Your task to perform on an android device: toggle pop-ups in chrome Image 0: 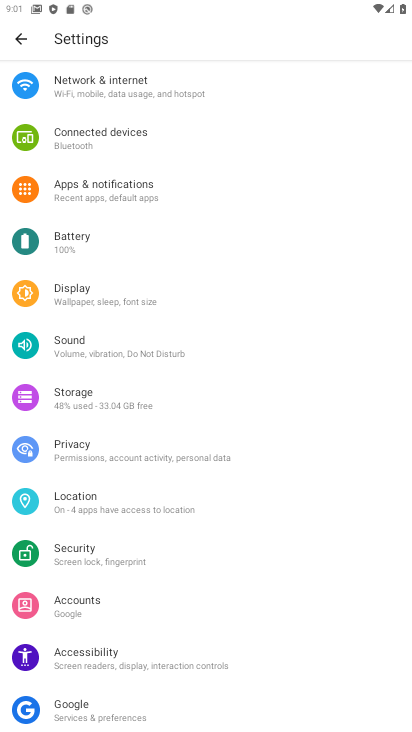
Step 0: press home button
Your task to perform on an android device: toggle pop-ups in chrome Image 1: 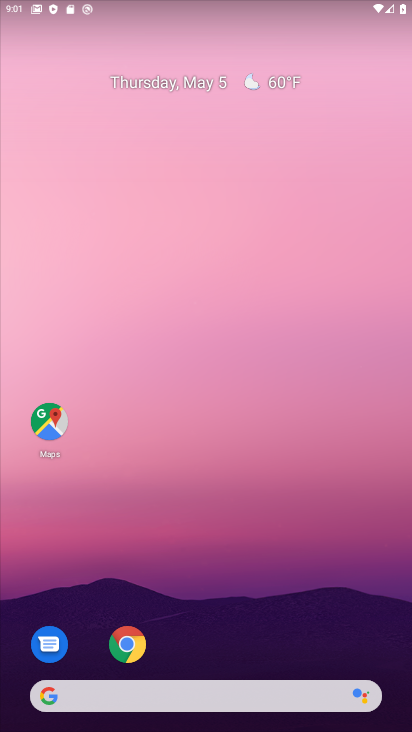
Step 1: drag from (379, 645) to (361, 85)
Your task to perform on an android device: toggle pop-ups in chrome Image 2: 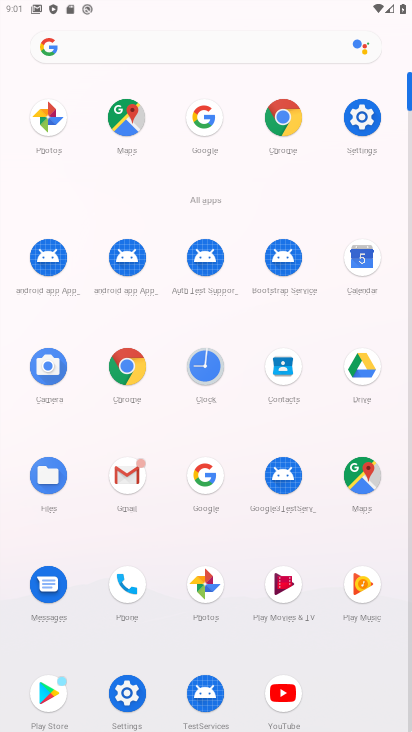
Step 2: click (124, 377)
Your task to perform on an android device: toggle pop-ups in chrome Image 3: 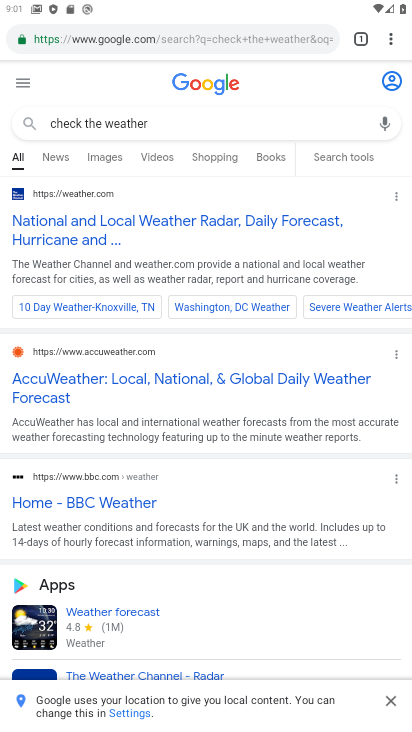
Step 3: drag from (390, 42) to (271, 438)
Your task to perform on an android device: toggle pop-ups in chrome Image 4: 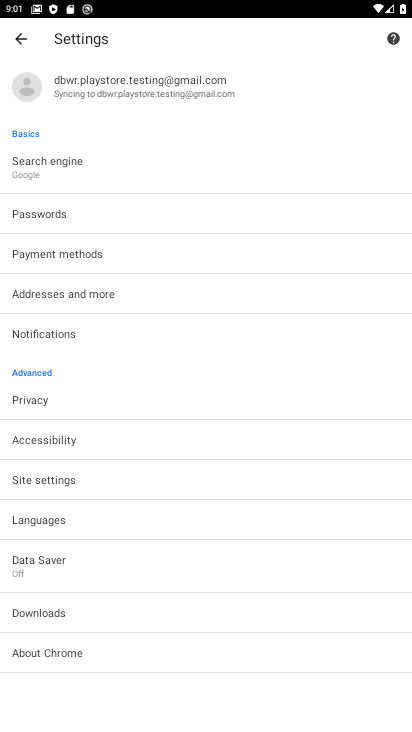
Step 4: drag from (224, 619) to (247, 376)
Your task to perform on an android device: toggle pop-ups in chrome Image 5: 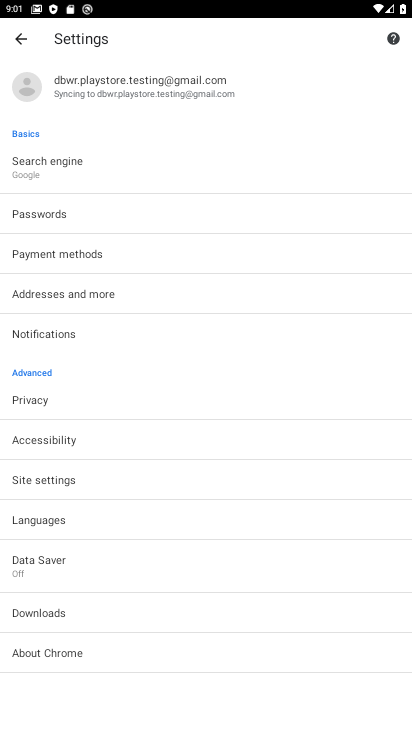
Step 5: click (75, 485)
Your task to perform on an android device: toggle pop-ups in chrome Image 6: 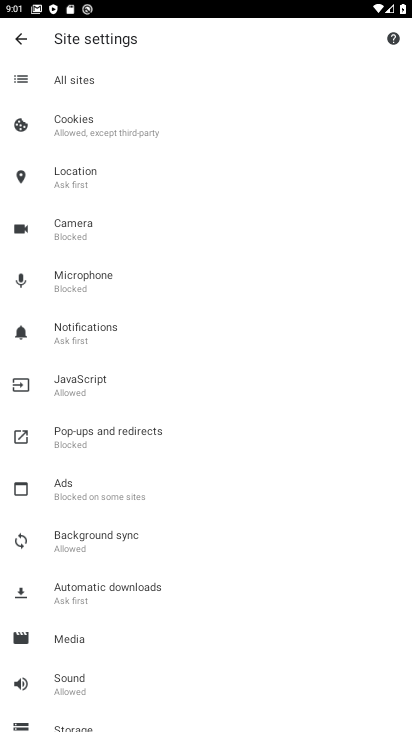
Step 6: click (142, 435)
Your task to perform on an android device: toggle pop-ups in chrome Image 7: 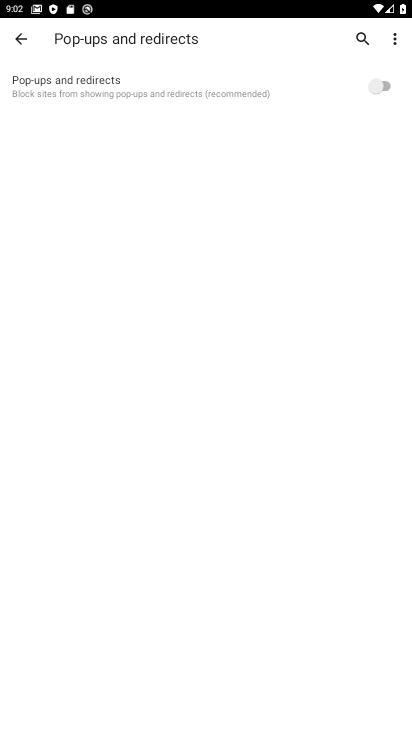
Step 7: click (382, 85)
Your task to perform on an android device: toggle pop-ups in chrome Image 8: 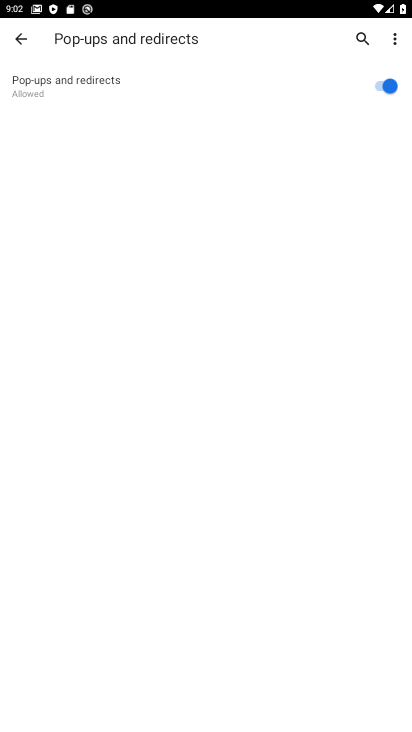
Step 8: task complete